Your task to perform on an android device: Play the last video I watched on Youtube Image 0: 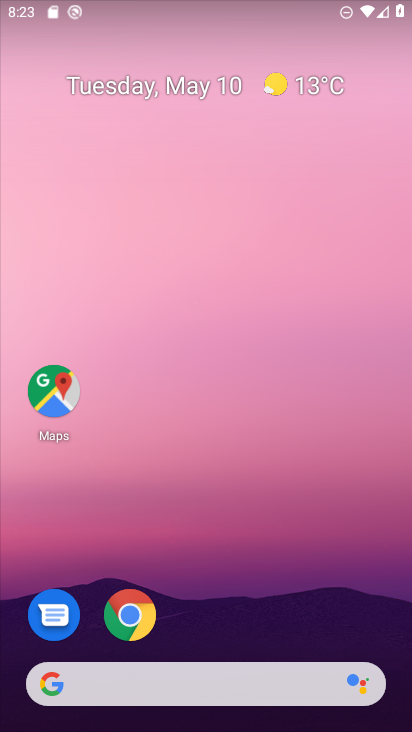
Step 0: drag from (215, 213) to (201, 119)
Your task to perform on an android device: Play the last video I watched on Youtube Image 1: 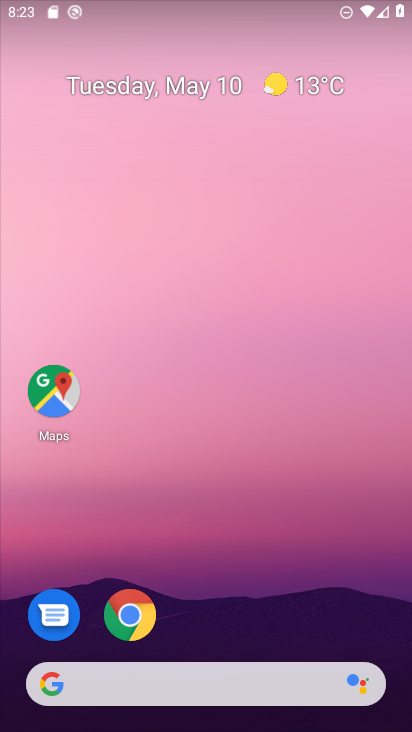
Step 1: drag from (261, 617) to (187, 69)
Your task to perform on an android device: Play the last video I watched on Youtube Image 2: 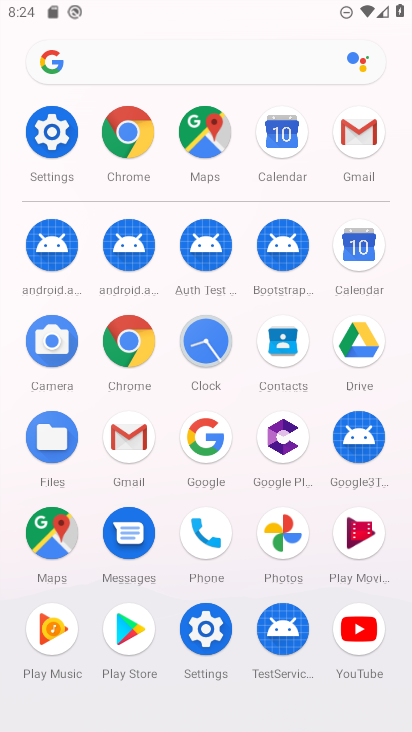
Step 2: click (362, 625)
Your task to perform on an android device: Play the last video I watched on Youtube Image 3: 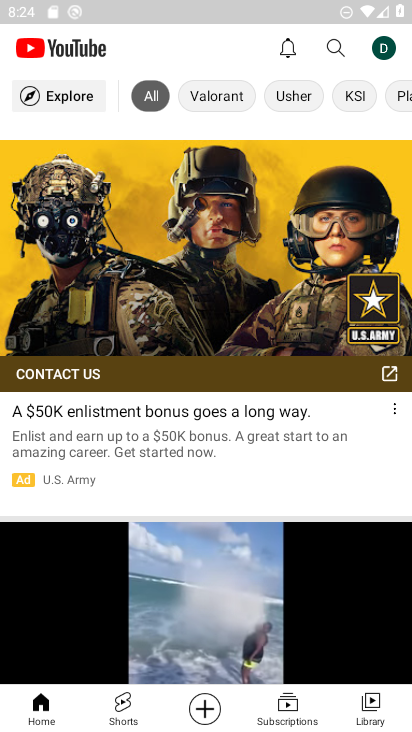
Step 3: drag from (258, 597) to (220, 318)
Your task to perform on an android device: Play the last video I watched on Youtube Image 4: 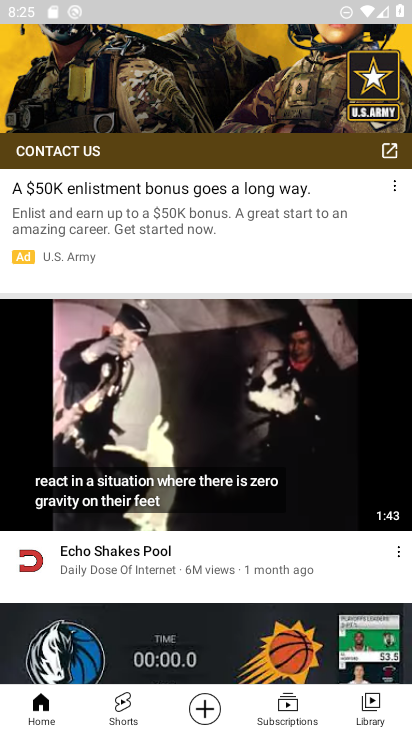
Step 4: click (372, 699)
Your task to perform on an android device: Play the last video I watched on Youtube Image 5: 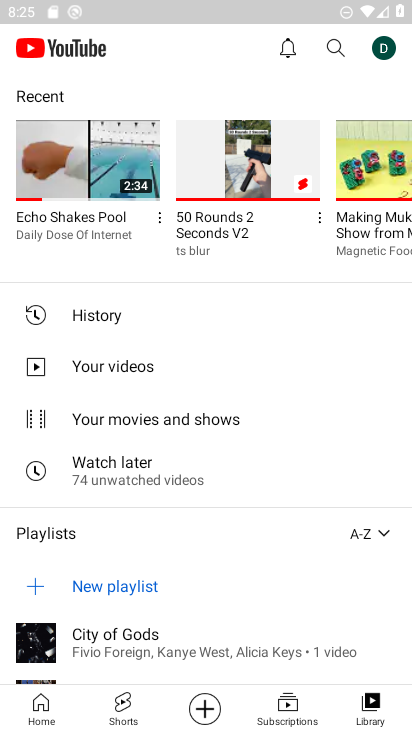
Step 5: click (78, 183)
Your task to perform on an android device: Play the last video I watched on Youtube Image 6: 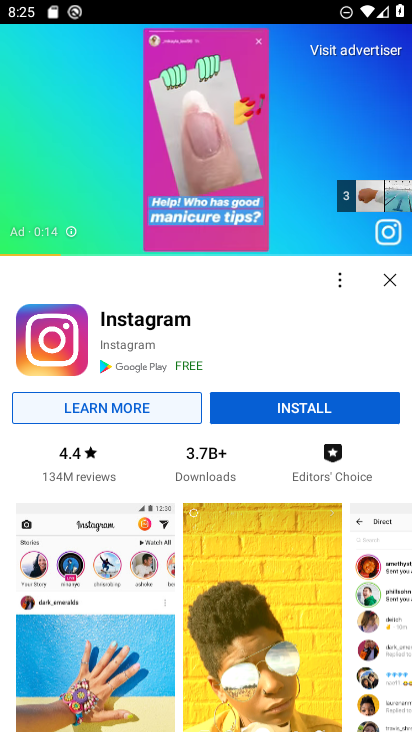
Step 6: click (193, 151)
Your task to perform on an android device: Play the last video I watched on Youtube Image 7: 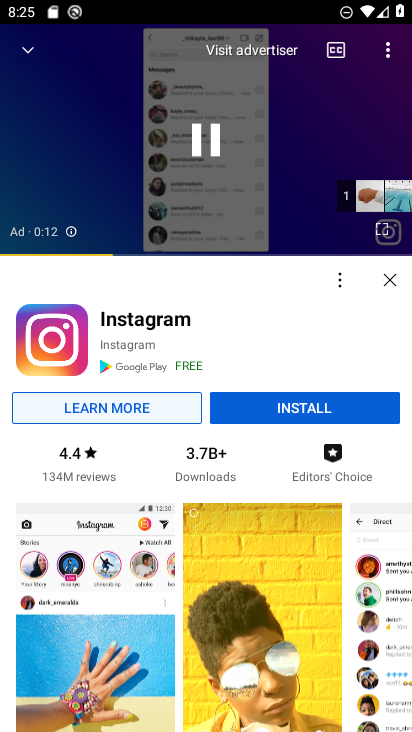
Step 7: click (196, 132)
Your task to perform on an android device: Play the last video I watched on Youtube Image 8: 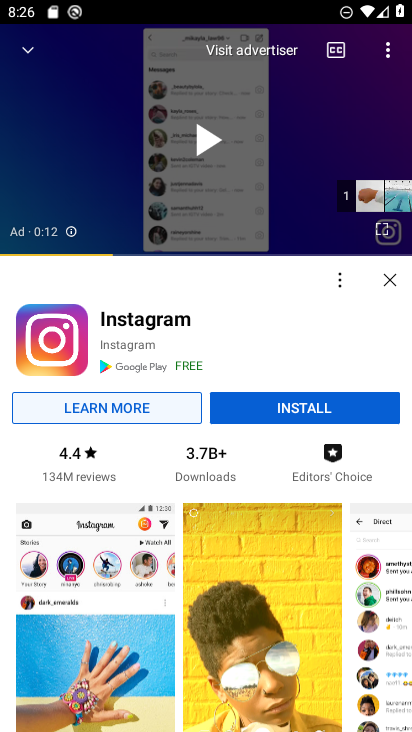
Step 8: task complete